Your task to perform on an android device: empty trash in google photos Image 0: 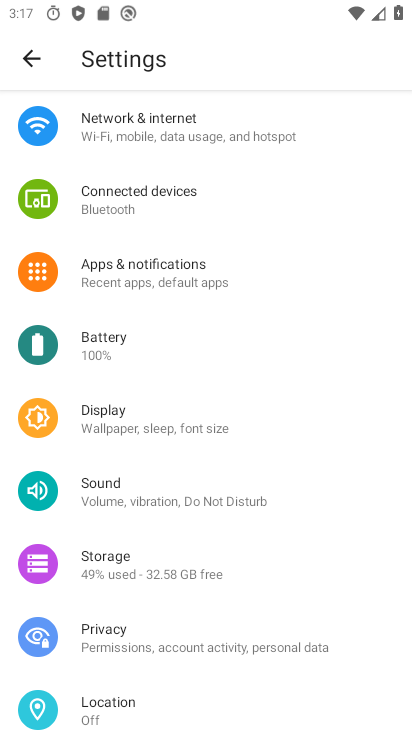
Step 0: press back button
Your task to perform on an android device: empty trash in google photos Image 1: 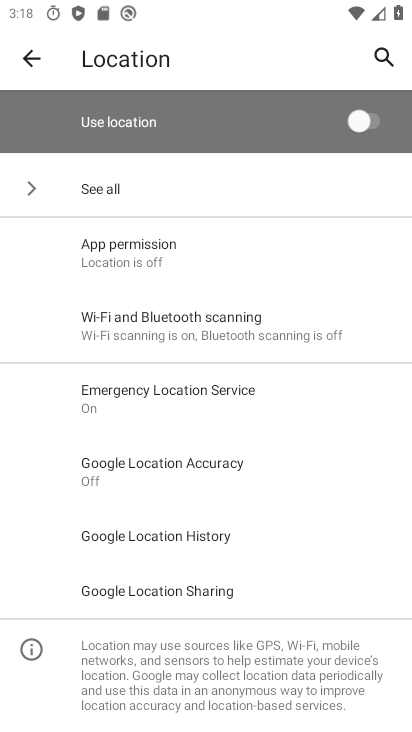
Step 1: press back button
Your task to perform on an android device: empty trash in google photos Image 2: 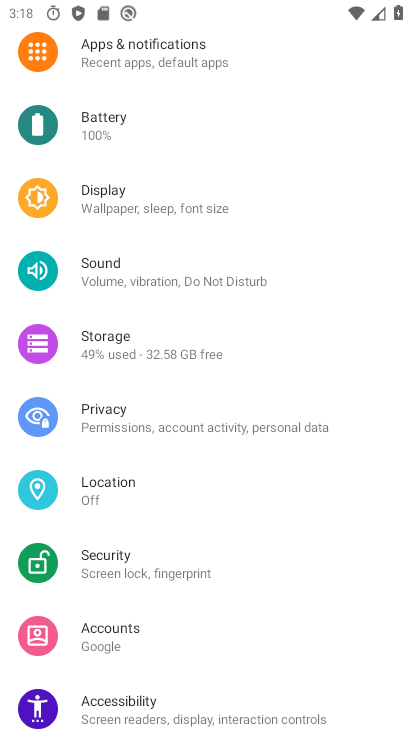
Step 2: press back button
Your task to perform on an android device: empty trash in google photos Image 3: 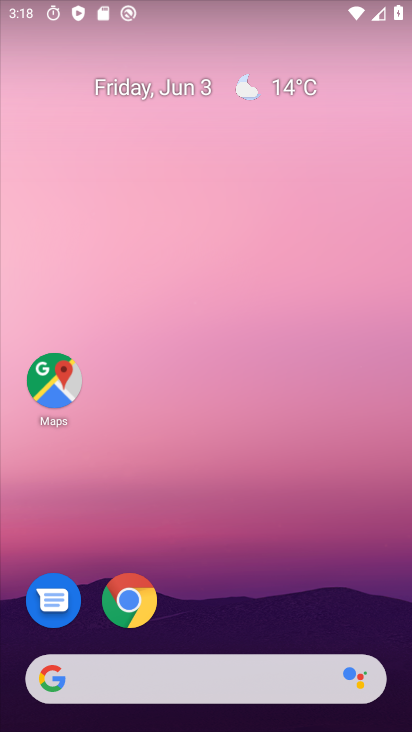
Step 3: drag from (227, 596) to (206, 27)
Your task to perform on an android device: empty trash in google photos Image 4: 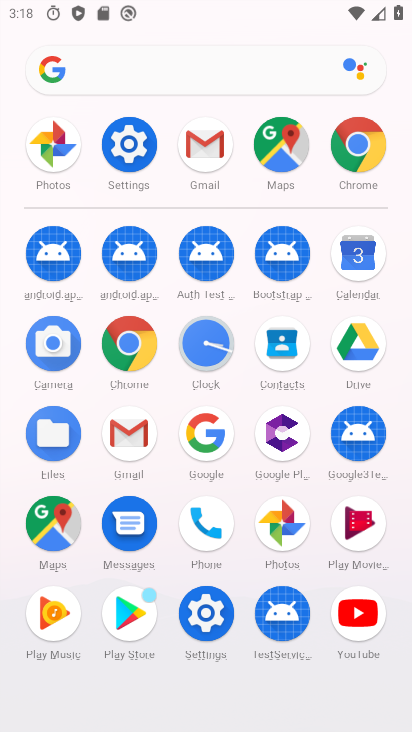
Step 4: click (287, 518)
Your task to perform on an android device: empty trash in google photos Image 5: 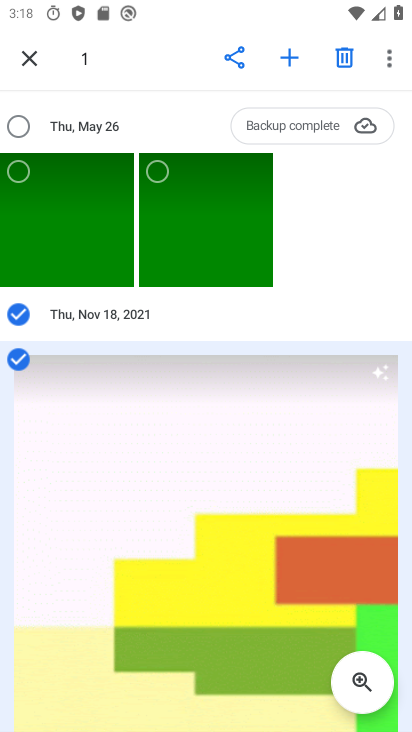
Step 5: click (33, 58)
Your task to perform on an android device: empty trash in google photos Image 6: 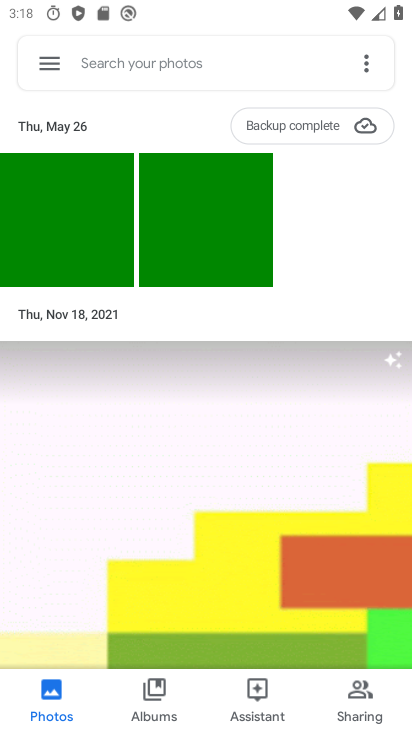
Step 6: click (44, 62)
Your task to perform on an android device: empty trash in google photos Image 7: 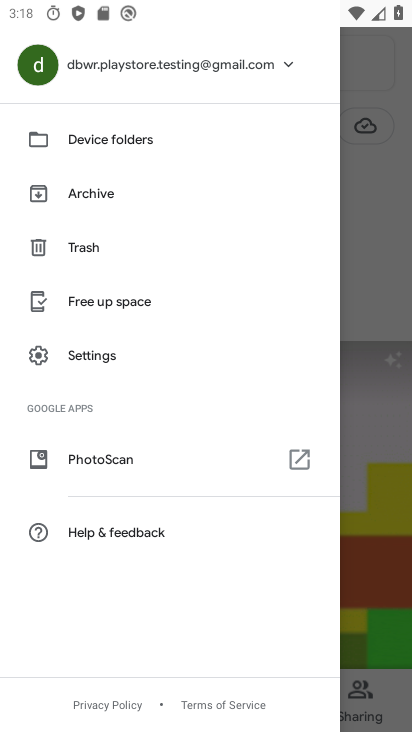
Step 7: click (95, 252)
Your task to perform on an android device: empty trash in google photos Image 8: 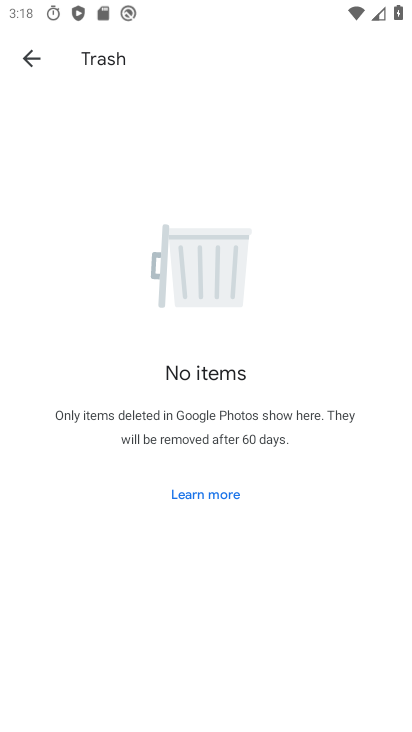
Step 8: task complete